Your task to perform on an android device: Open calendar and show me the first week of next month Image 0: 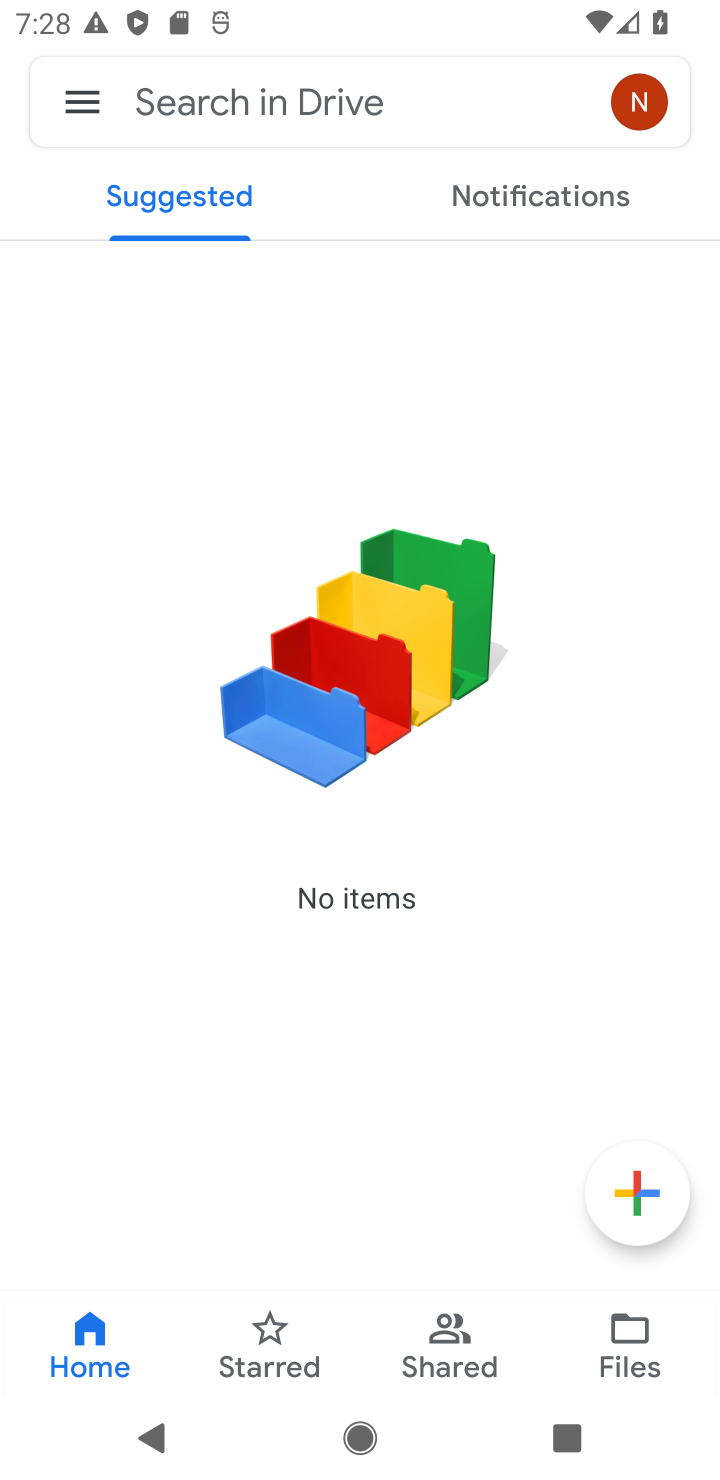
Step 0: press home button
Your task to perform on an android device: Open calendar and show me the first week of next month Image 1: 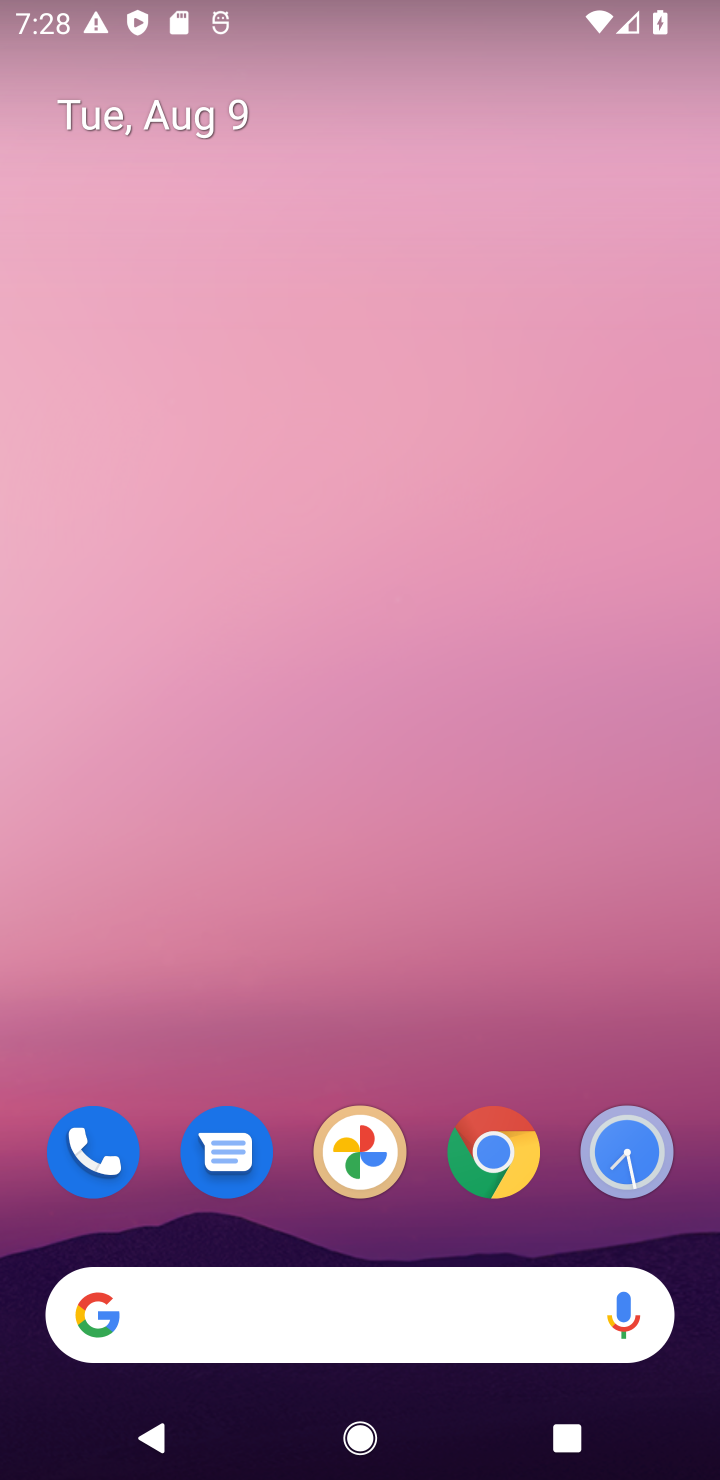
Step 1: click (188, 120)
Your task to perform on an android device: Open calendar and show me the first week of next month Image 2: 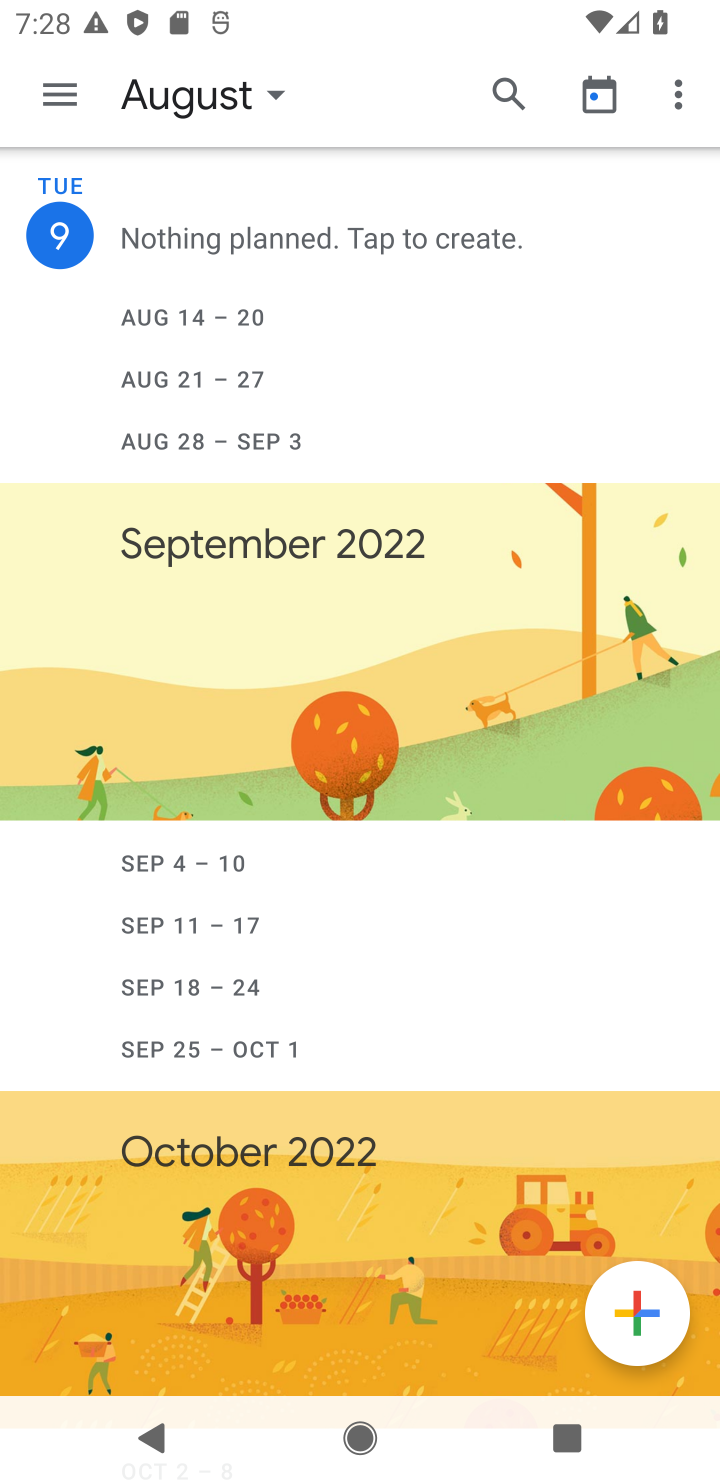
Step 2: click (188, 120)
Your task to perform on an android device: Open calendar and show me the first week of next month Image 3: 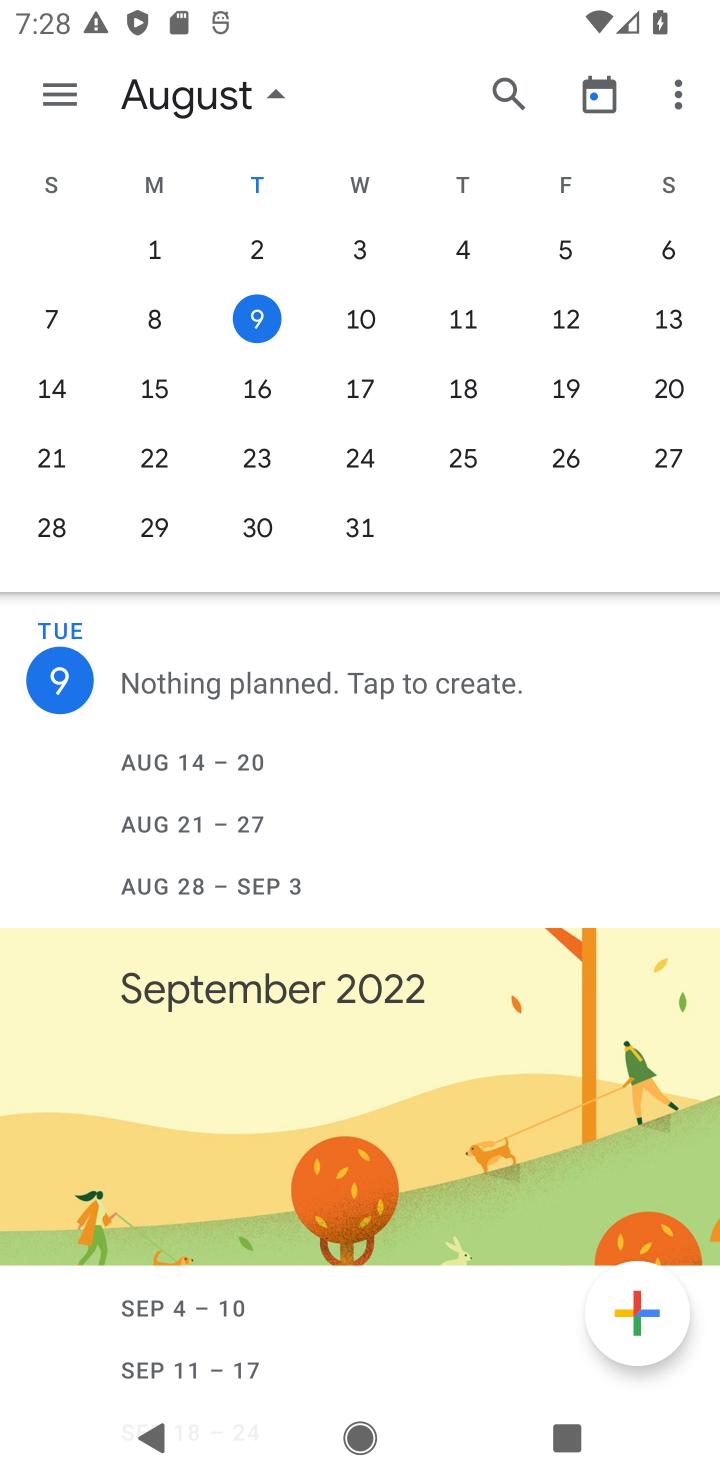
Step 3: task complete